Your task to perform on an android device: Install the Twitter app Image 0: 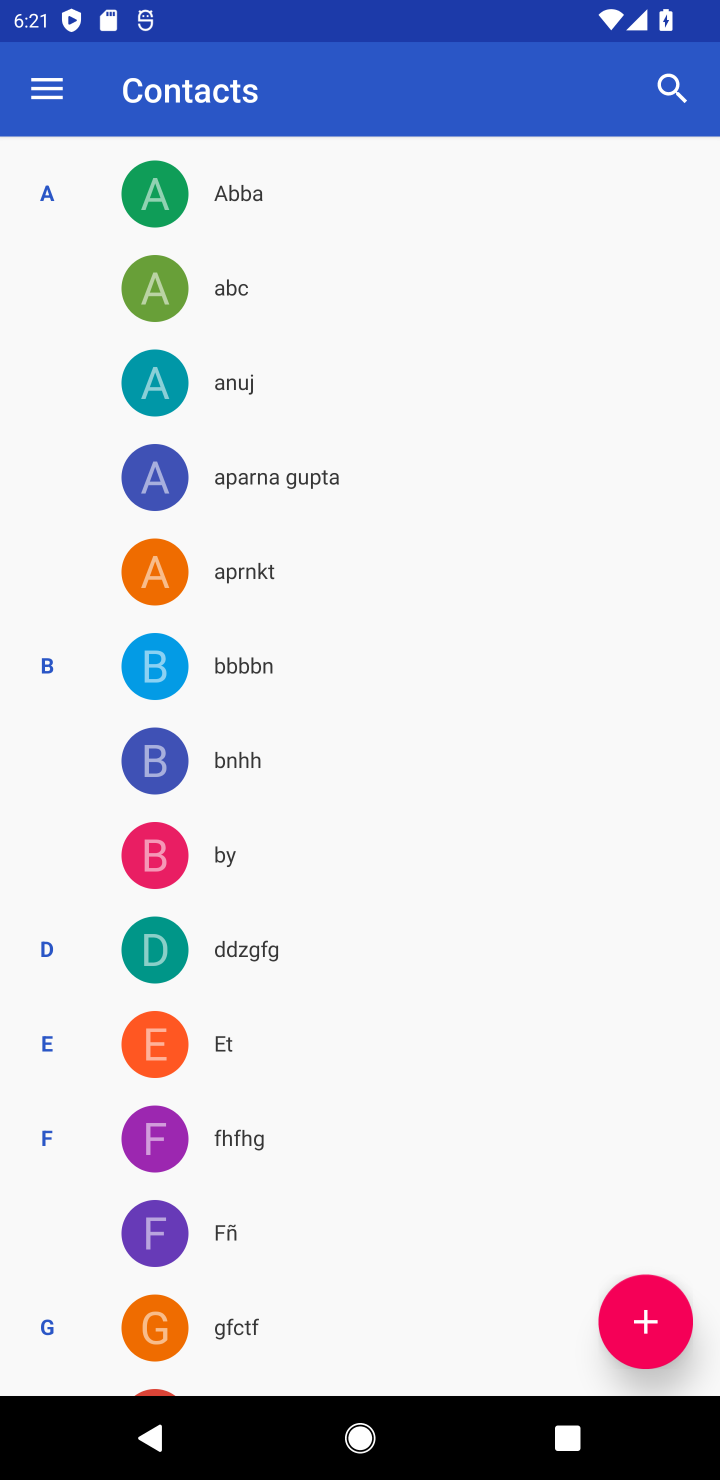
Step 0: press home button
Your task to perform on an android device: Install the Twitter app Image 1: 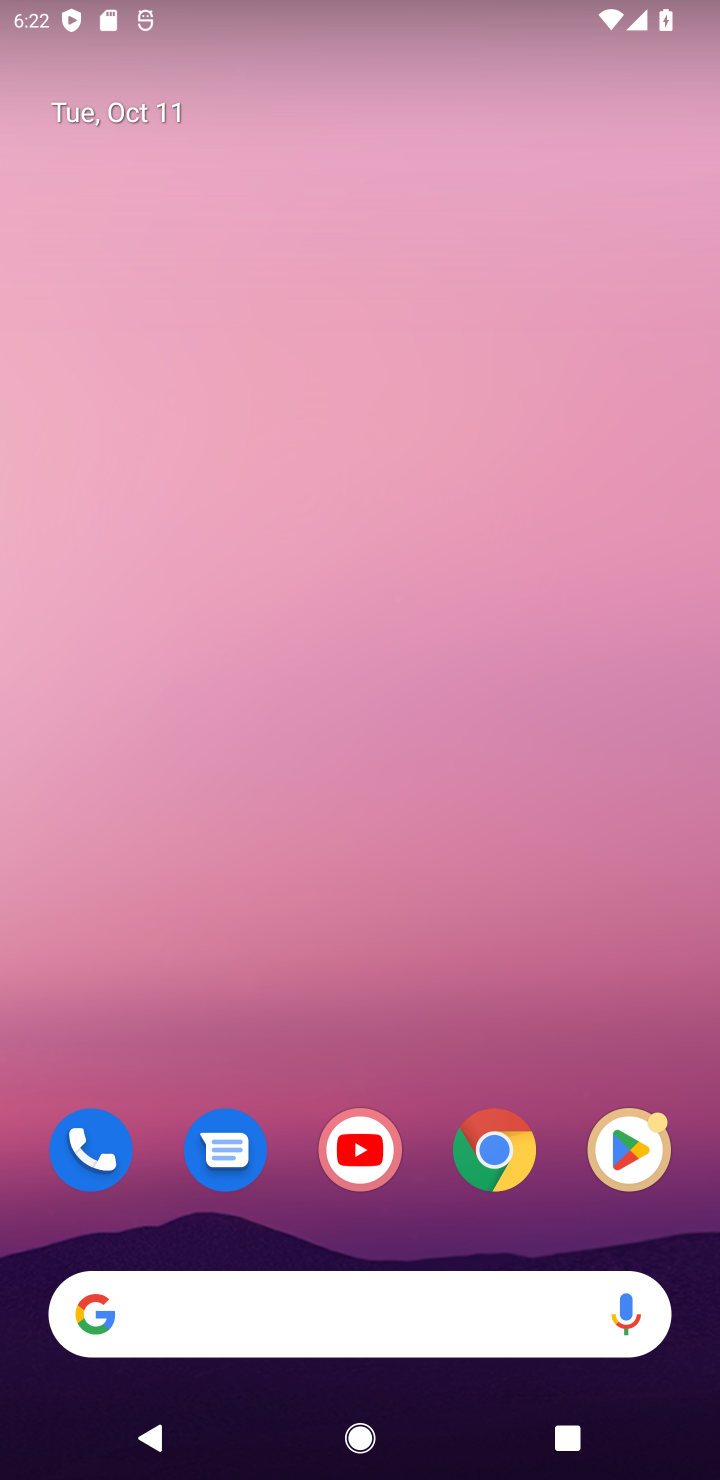
Step 1: click (620, 1146)
Your task to perform on an android device: Install the Twitter app Image 2: 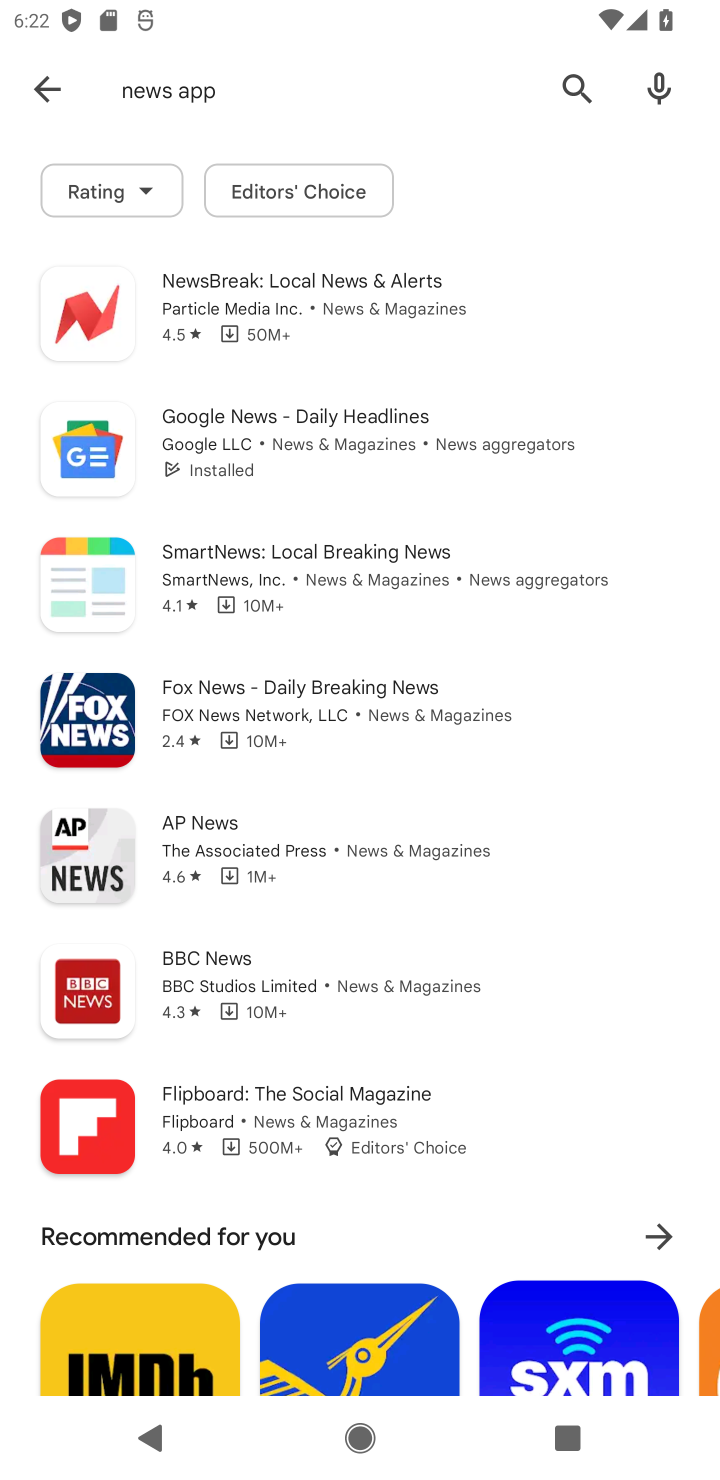
Step 2: click (573, 83)
Your task to perform on an android device: Install the Twitter app Image 3: 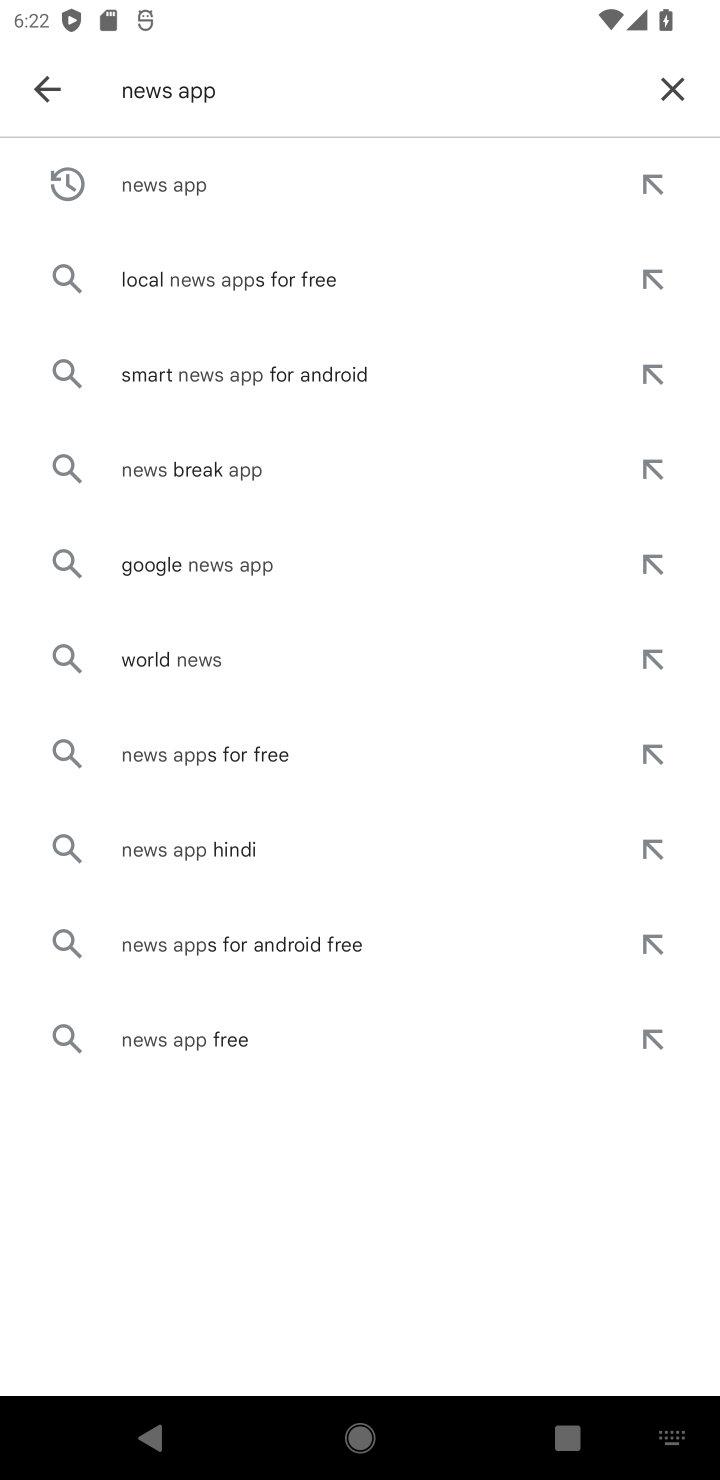
Step 3: click (669, 99)
Your task to perform on an android device: Install the Twitter app Image 4: 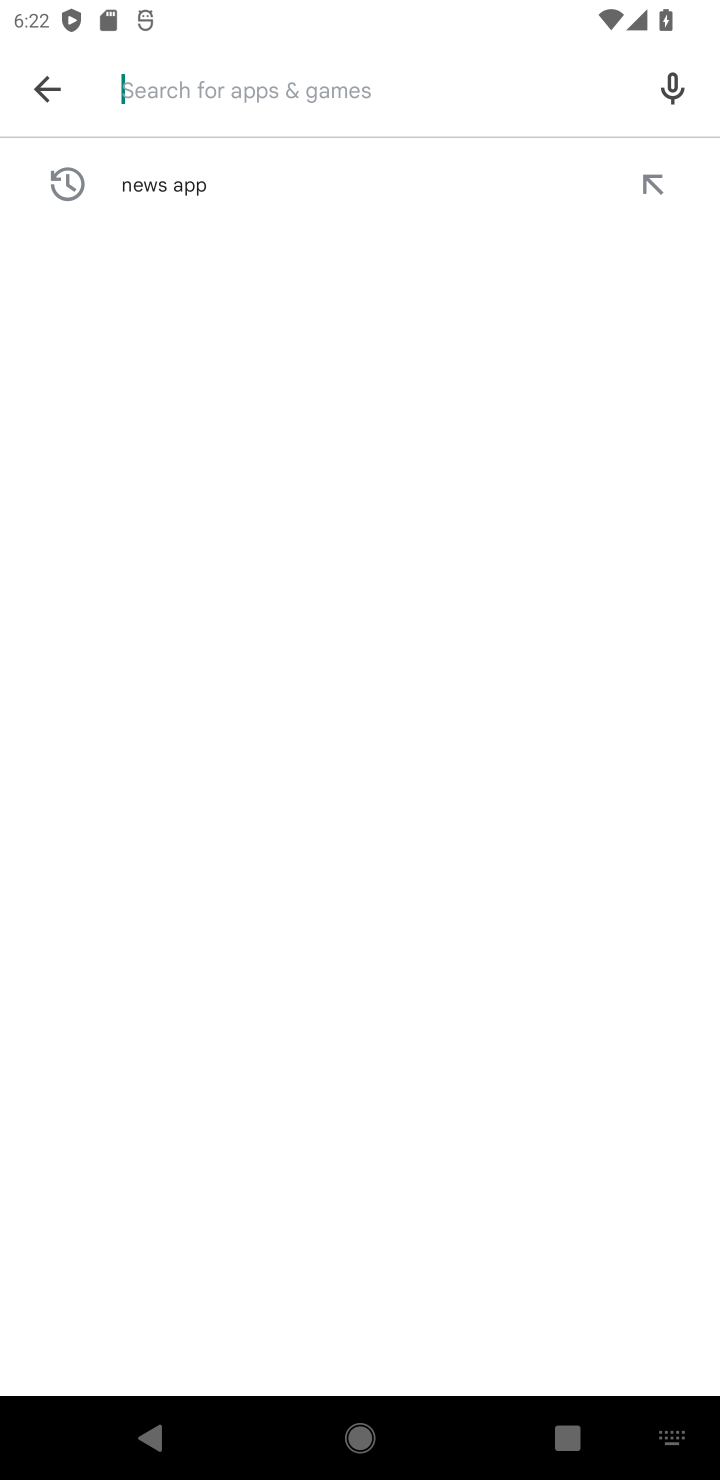
Step 4: type "twitter app"
Your task to perform on an android device: Install the Twitter app Image 5: 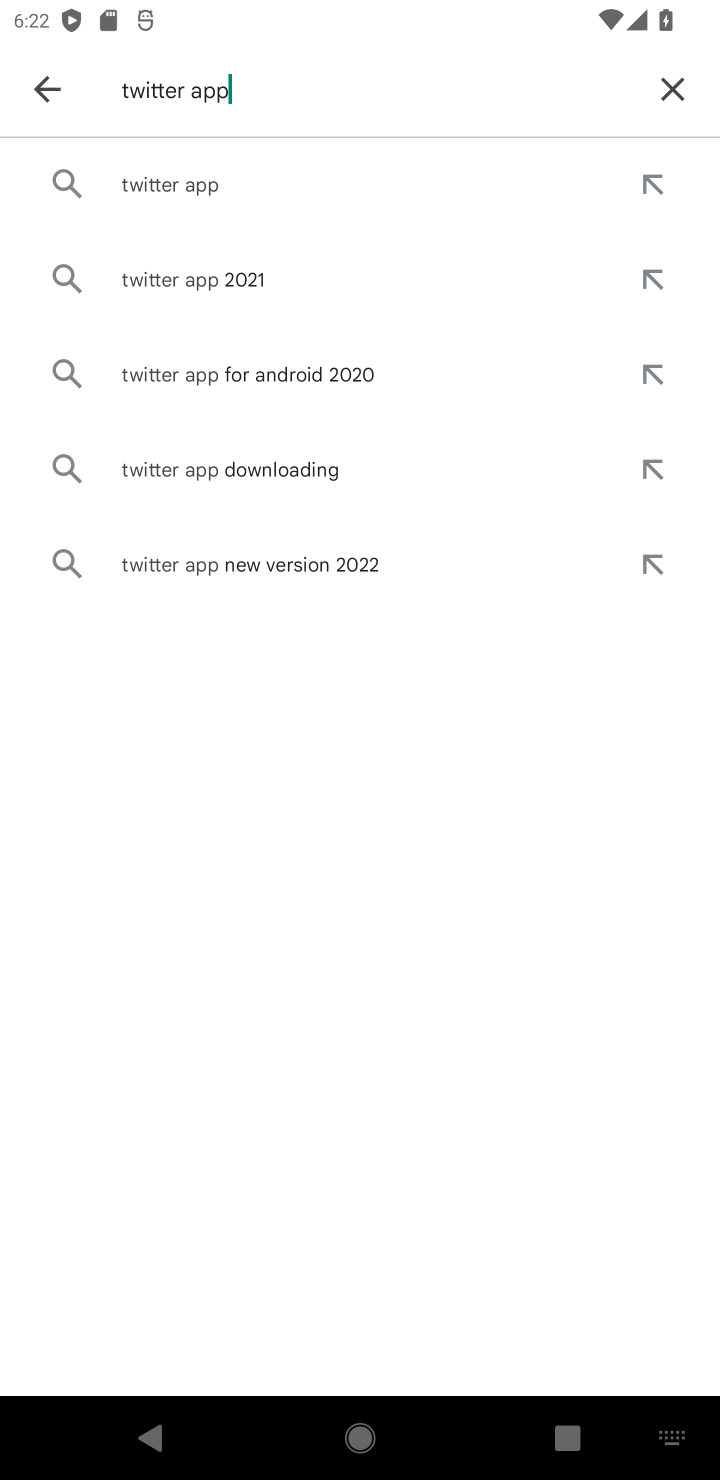
Step 5: click (170, 197)
Your task to perform on an android device: Install the Twitter app Image 6: 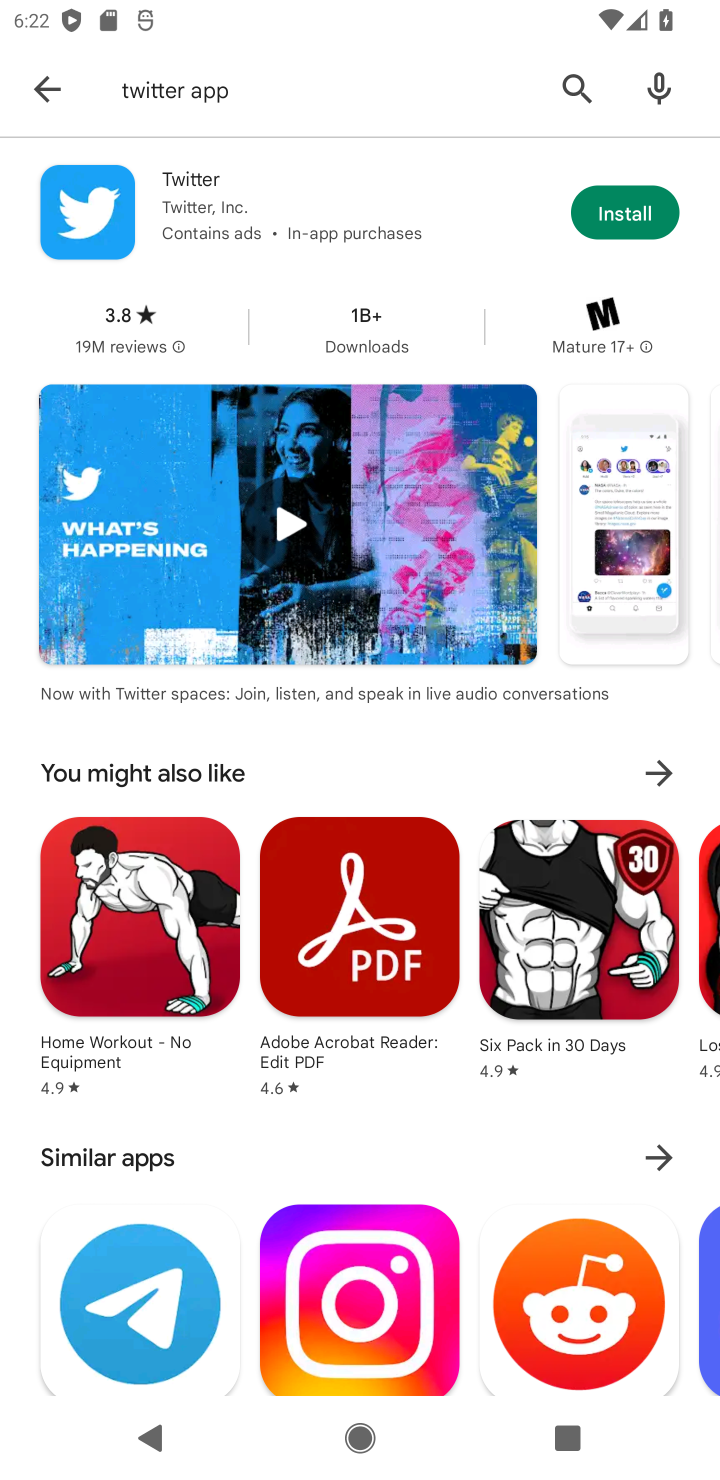
Step 6: click (621, 211)
Your task to perform on an android device: Install the Twitter app Image 7: 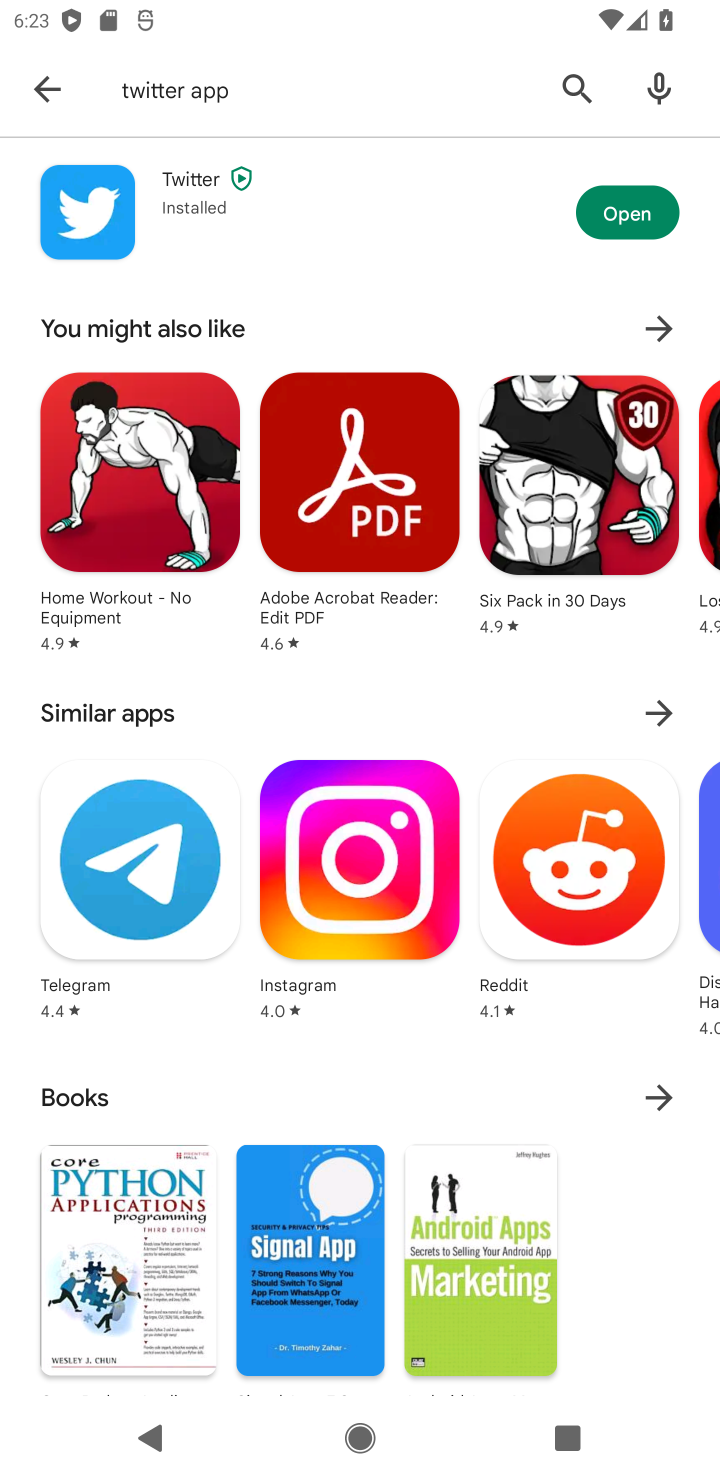
Step 7: task complete